Your task to perform on an android device: turn vacation reply on in the gmail app Image 0: 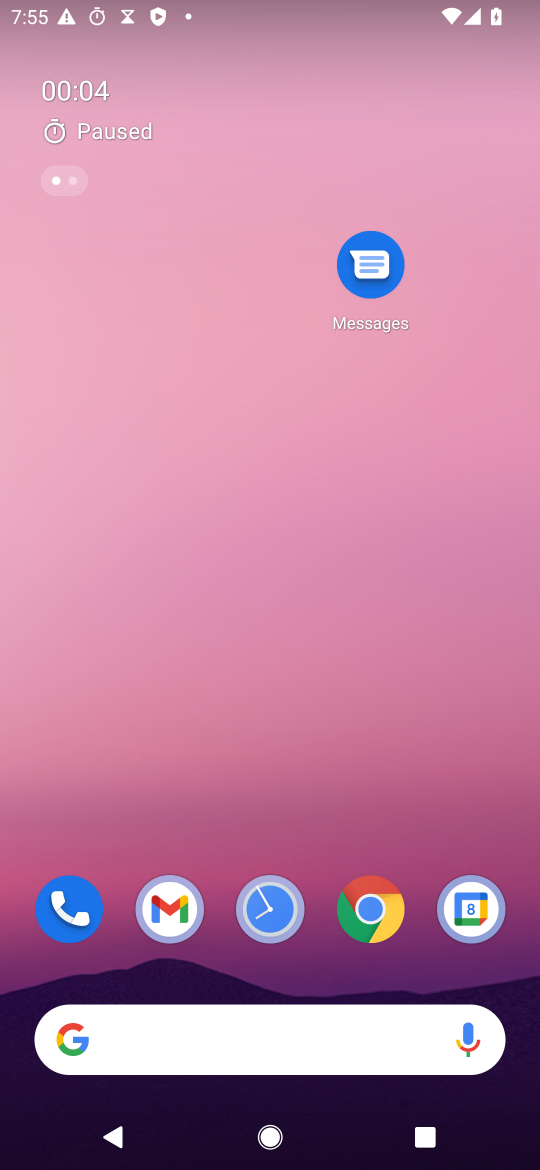
Step 0: press home button
Your task to perform on an android device: turn vacation reply on in the gmail app Image 1: 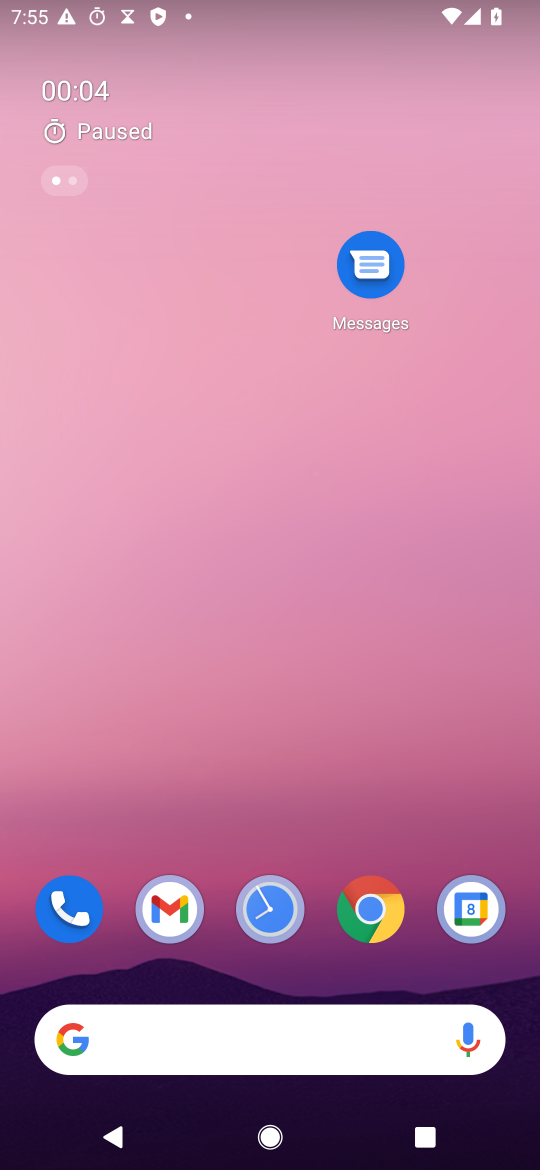
Step 1: click (158, 916)
Your task to perform on an android device: turn vacation reply on in the gmail app Image 2: 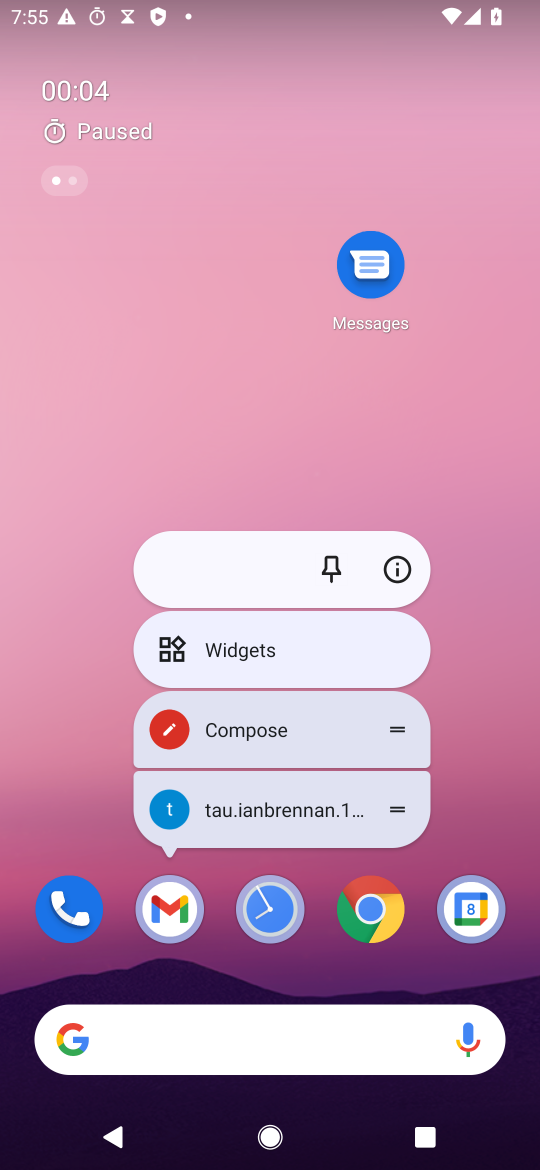
Step 2: click (166, 915)
Your task to perform on an android device: turn vacation reply on in the gmail app Image 3: 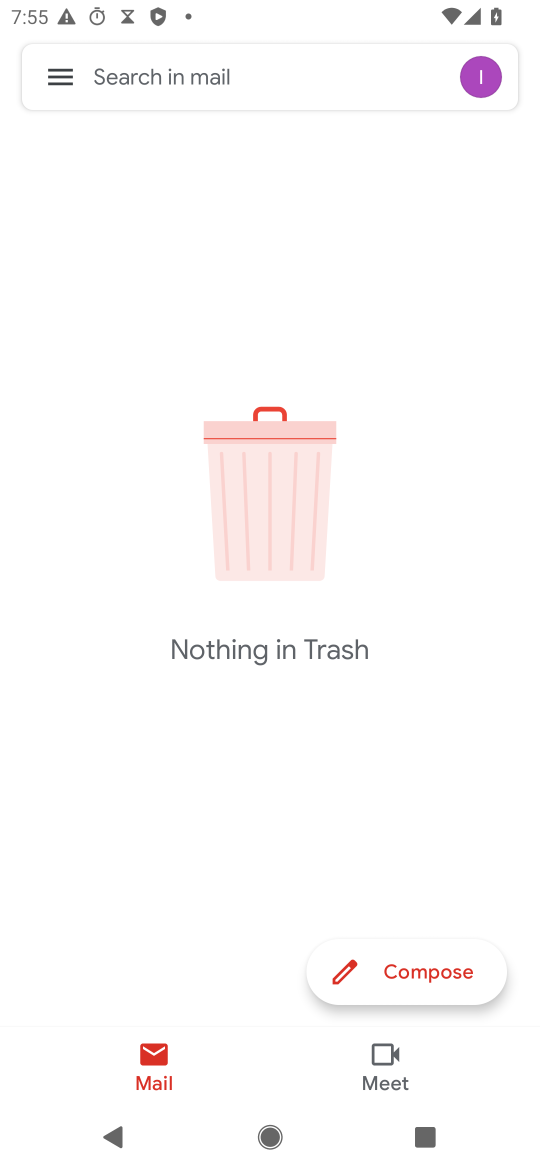
Step 3: click (60, 73)
Your task to perform on an android device: turn vacation reply on in the gmail app Image 4: 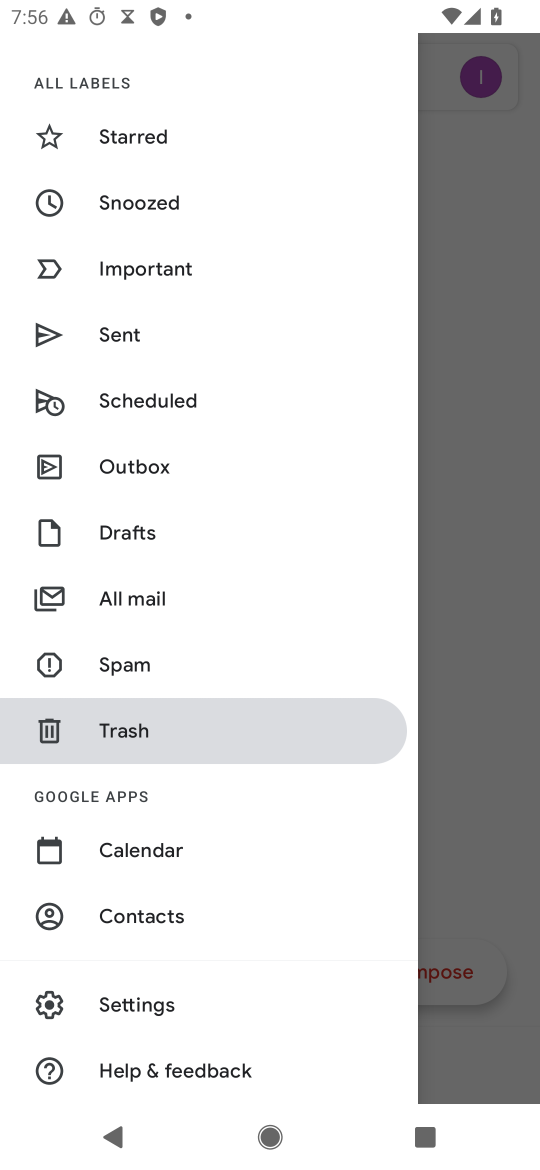
Step 4: click (154, 995)
Your task to perform on an android device: turn vacation reply on in the gmail app Image 5: 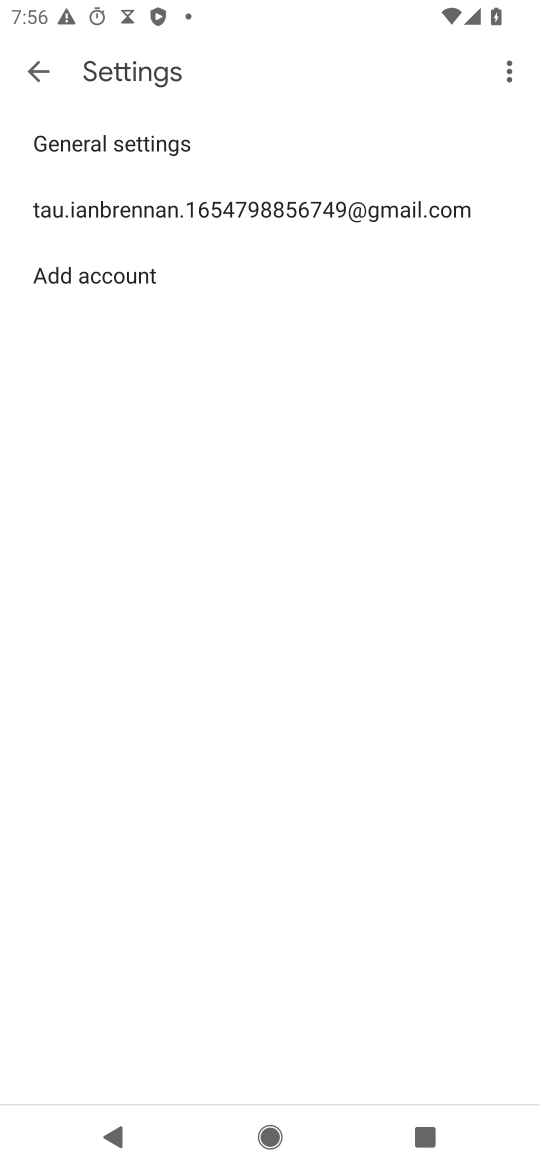
Step 5: click (334, 205)
Your task to perform on an android device: turn vacation reply on in the gmail app Image 6: 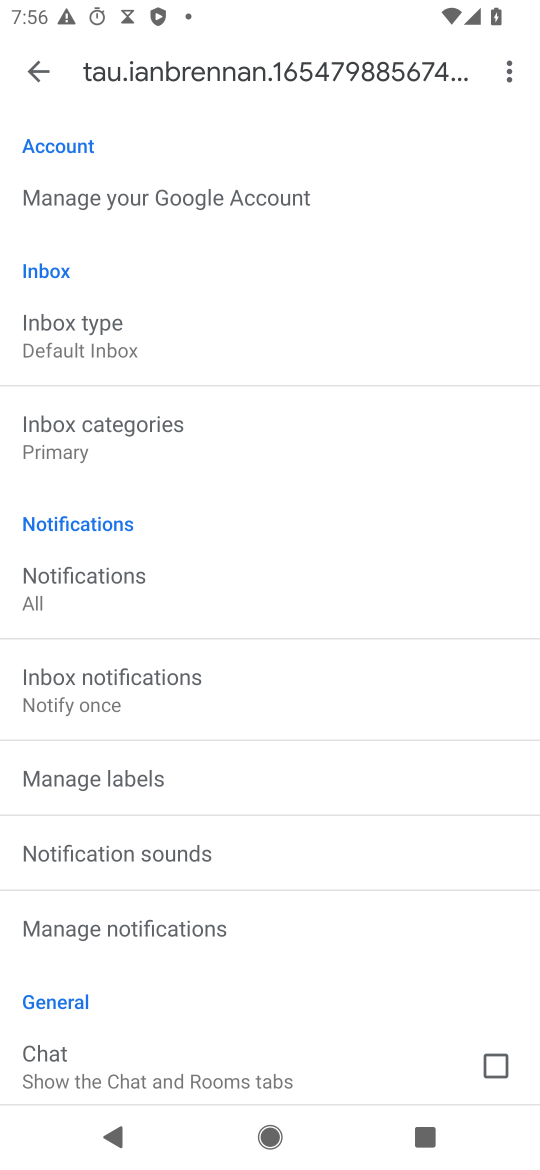
Step 6: drag from (211, 996) to (471, 182)
Your task to perform on an android device: turn vacation reply on in the gmail app Image 7: 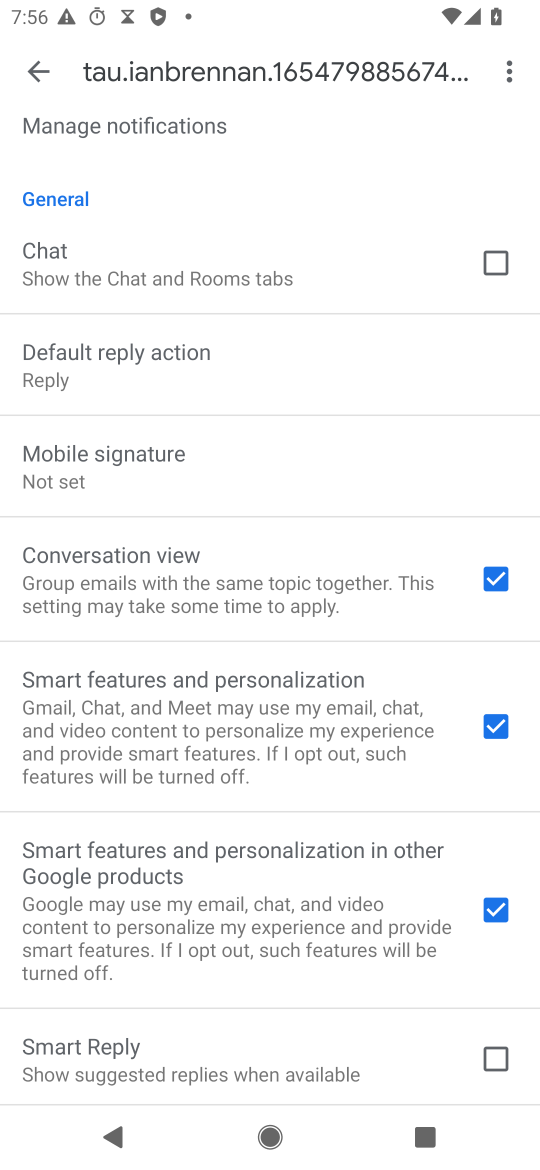
Step 7: drag from (264, 1021) to (449, 333)
Your task to perform on an android device: turn vacation reply on in the gmail app Image 8: 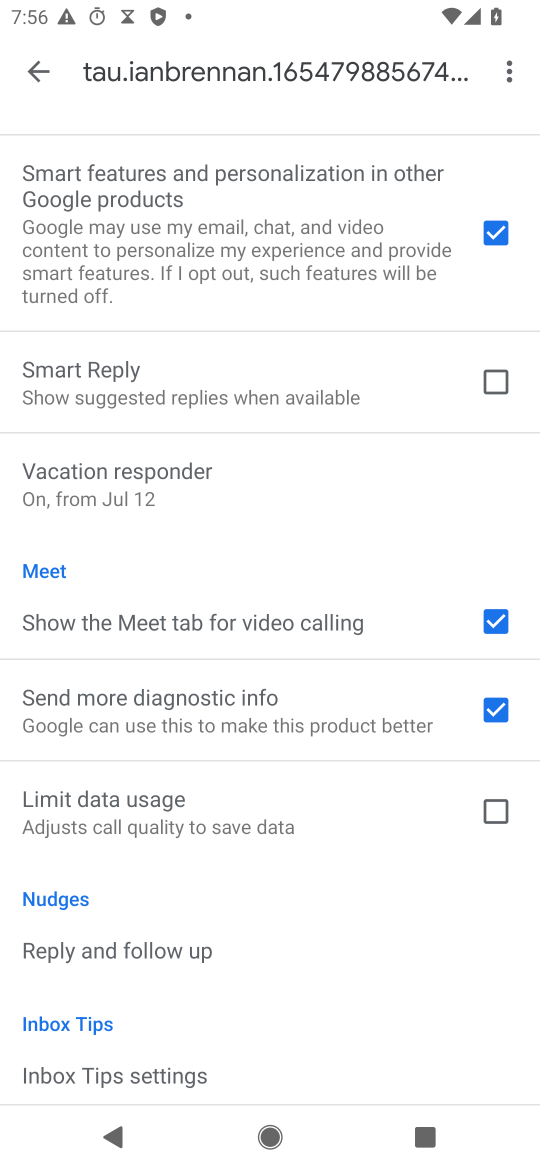
Step 8: click (115, 476)
Your task to perform on an android device: turn vacation reply on in the gmail app Image 9: 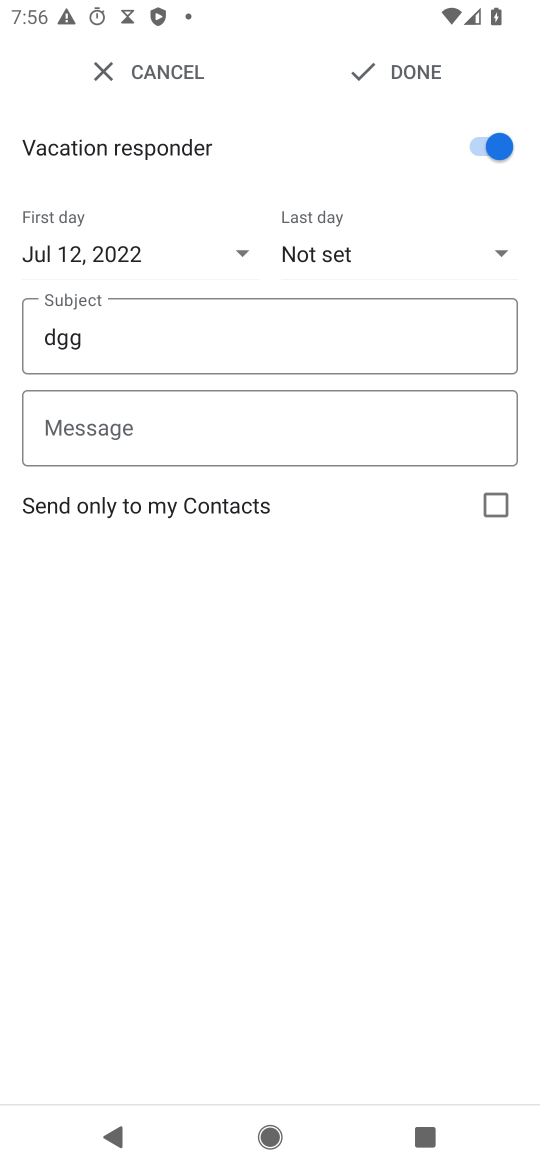
Step 9: task complete